Your task to perform on an android device: move a message to another label in the gmail app Image 0: 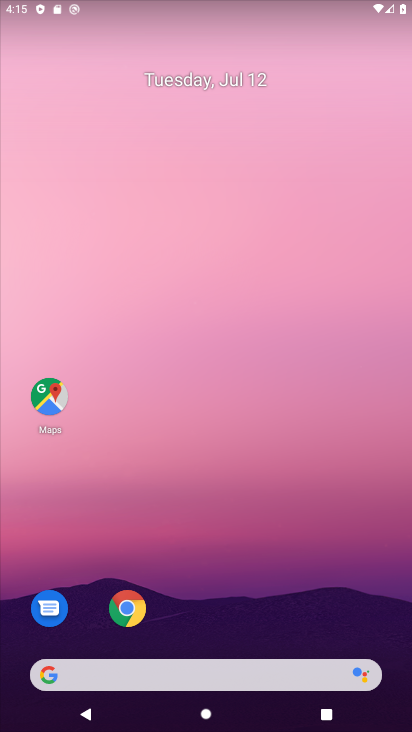
Step 0: drag from (253, 627) to (279, 81)
Your task to perform on an android device: move a message to another label in the gmail app Image 1: 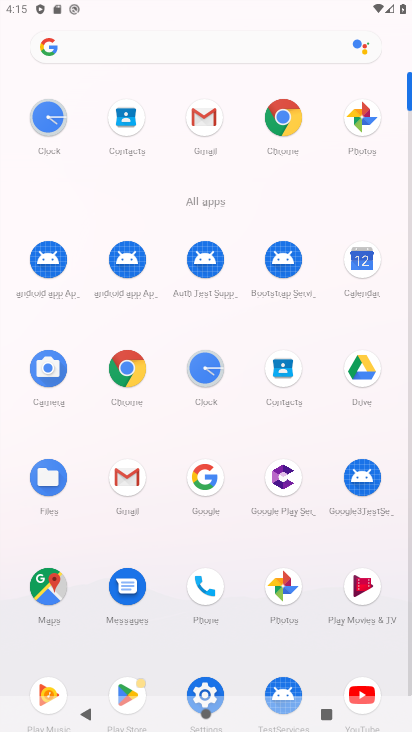
Step 1: click (210, 125)
Your task to perform on an android device: move a message to another label in the gmail app Image 2: 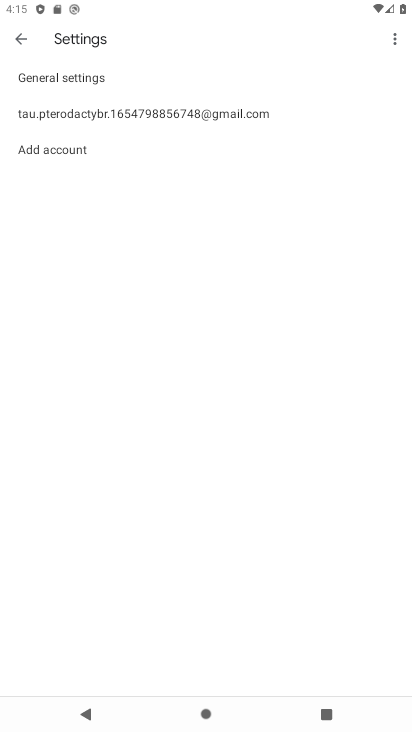
Step 2: click (23, 42)
Your task to perform on an android device: move a message to another label in the gmail app Image 3: 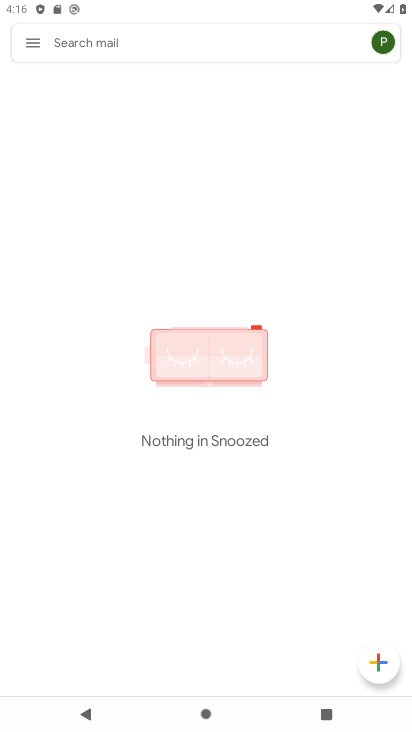
Step 3: click (26, 45)
Your task to perform on an android device: move a message to another label in the gmail app Image 4: 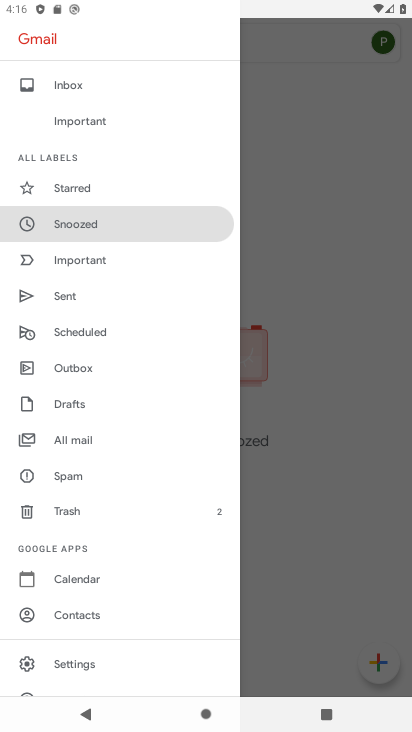
Step 4: click (132, 84)
Your task to perform on an android device: move a message to another label in the gmail app Image 5: 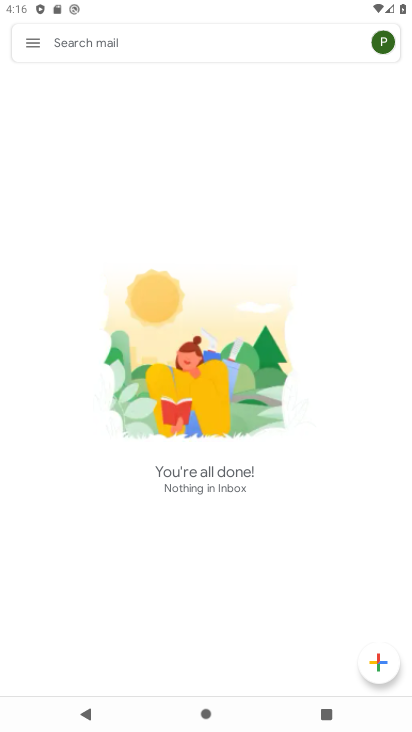
Step 5: task complete